Your task to perform on an android device: change the clock display to digital Image 0: 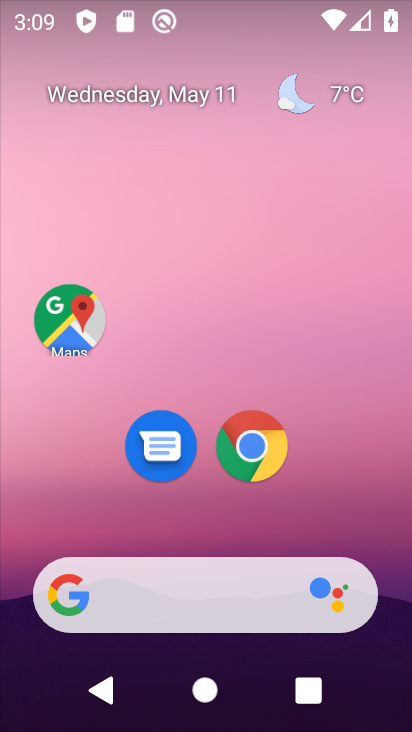
Step 0: drag from (344, 674) to (178, 197)
Your task to perform on an android device: change the clock display to digital Image 1: 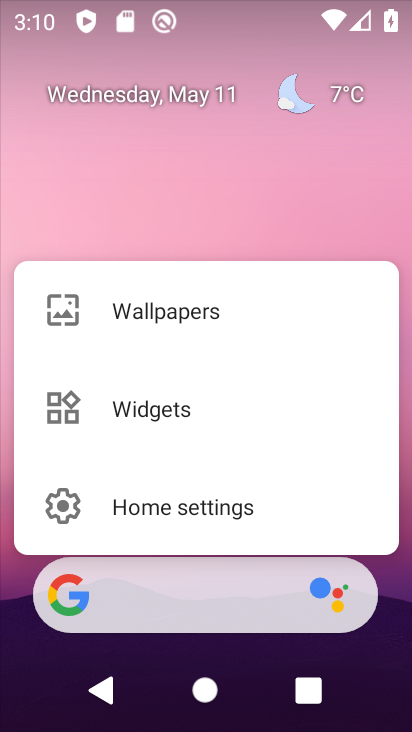
Step 1: click (254, 221)
Your task to perform on an android device: change the clock display to digital Image 2: 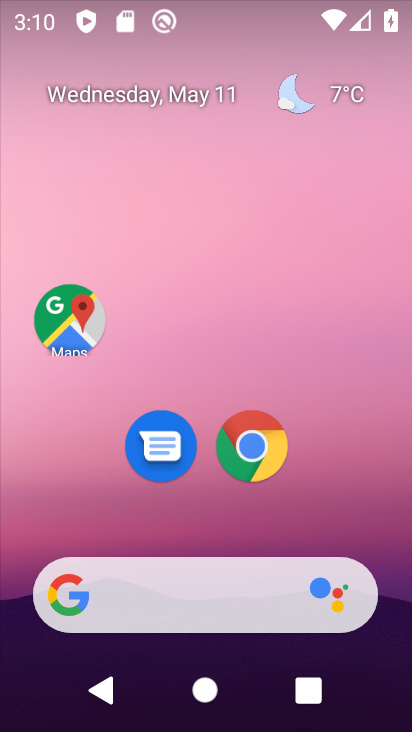
Step 2: click (254, 221)
Your task to perform on an android device: change the clock display to digital Image 3: 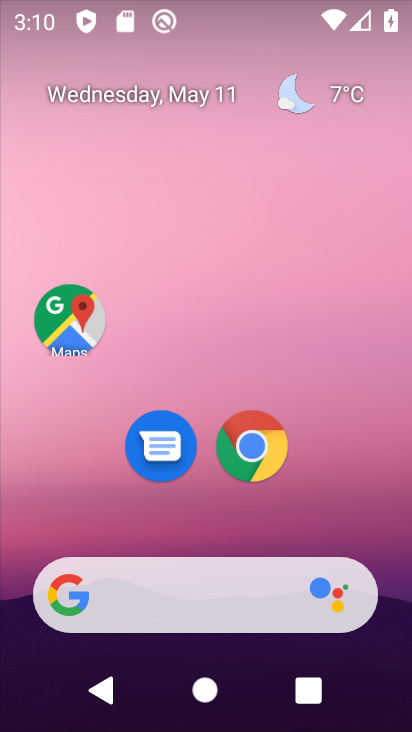
Step 3: click (254, 217)
Your task to perform on an android device: change the clock display to digital Image 4: 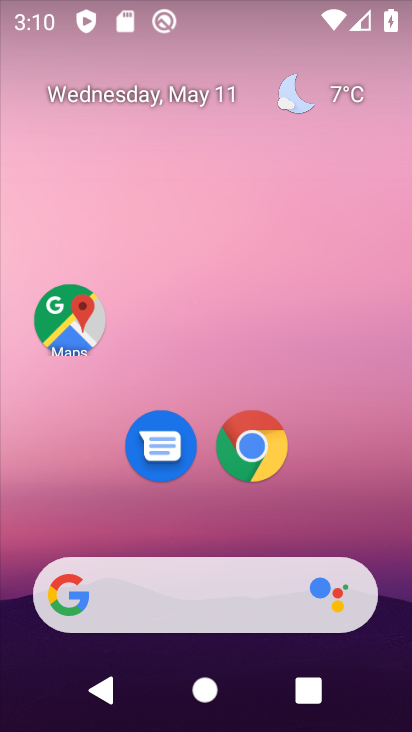
Step 4: drag from (346, 457) to (225, 132)
Your task to perform on an android device: change the clock display to digital Image 5: 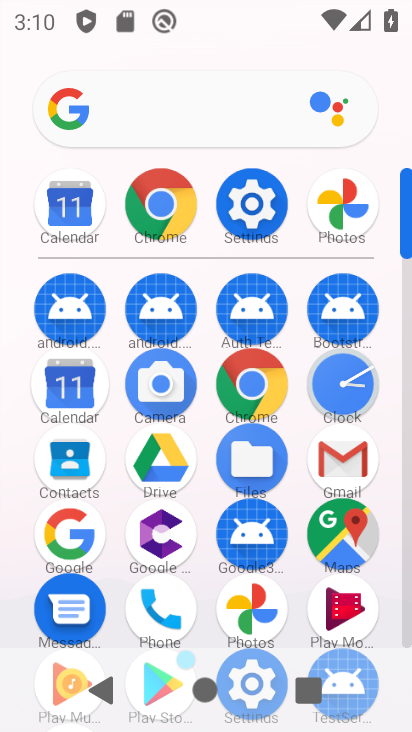
Step 5: click (350, 390)
Your task to perform on an android device: change the clock display to digital Image 6: 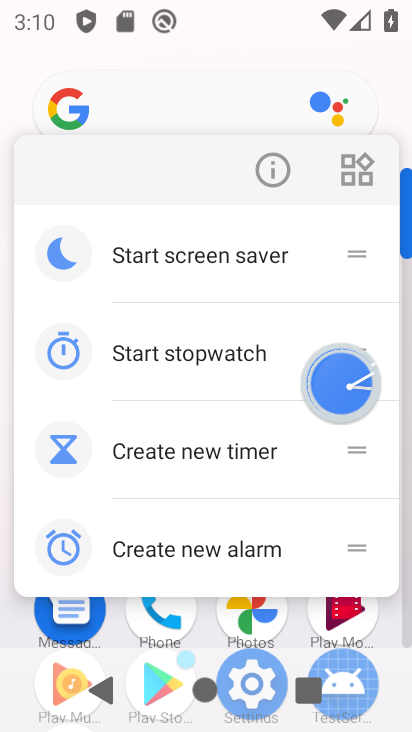
Step 6: click (339, 386)
Your task to perform on an android device: change the clock display to digital Image 7: 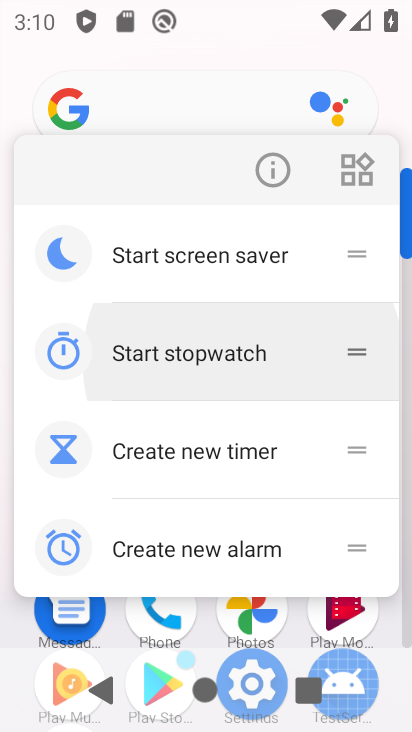
Step 7: click (338, 385)
Your task to perform on an android device: change the clock display to digital Image 8: 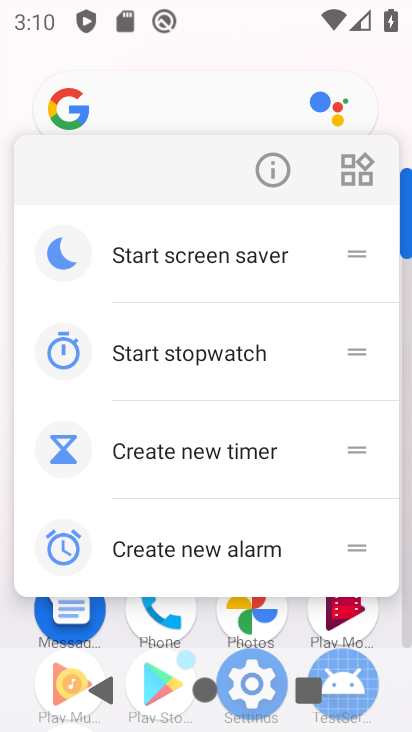
Step 8: click (190, 180)
Your task to perform on an android device: change the clock display to digital Image 9: 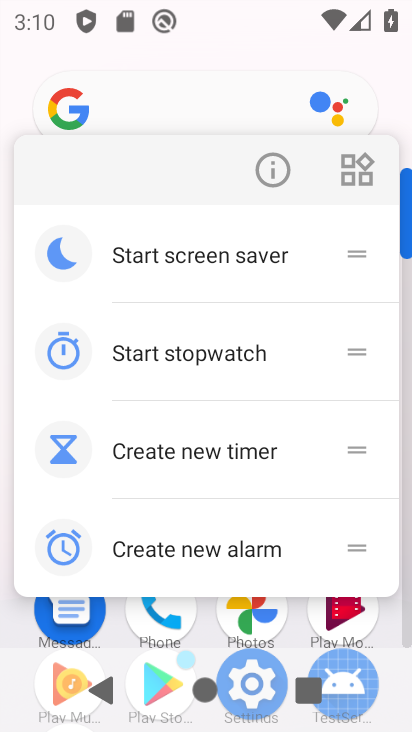
Step 9: click (189, 169)
Your task to perform on an android device: change the clock display to digital Image 10: 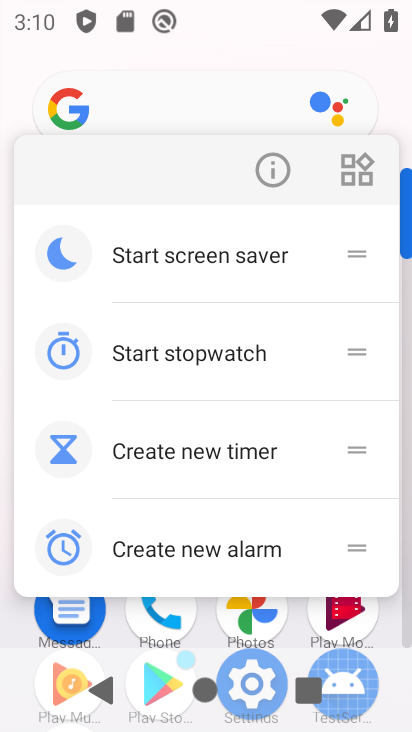
Step 10: click (188, 168)
Your task to perform on an android device: change the clock display to digital Image 11: 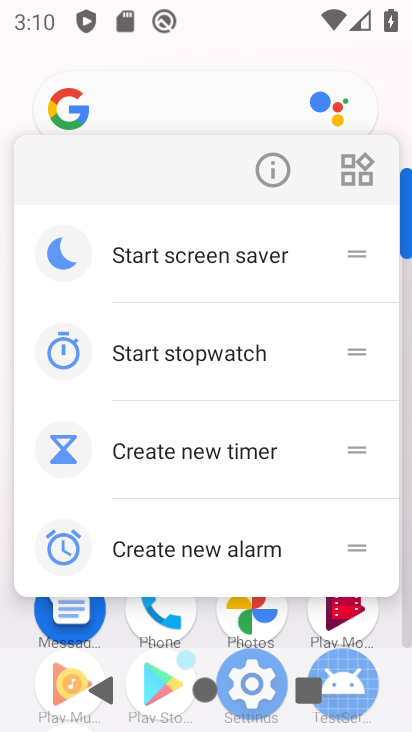
Step 11: click (186, 168)
Your task to perform on an android device: change the clock display to digital Image 12: 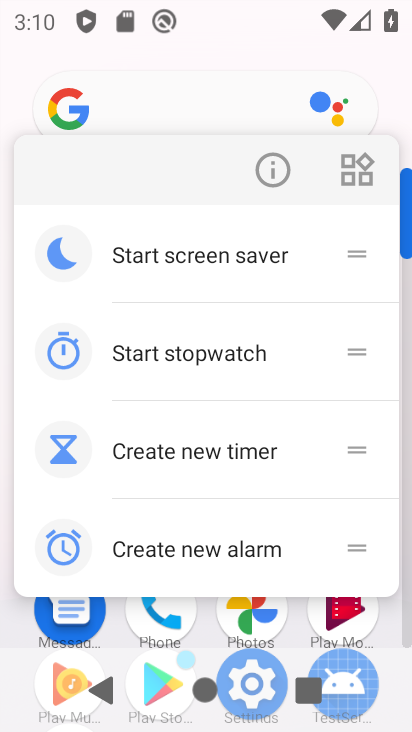
Step 12: click (207, 183)
Your task to perform on an android device: change the clock display to digital Image 13: 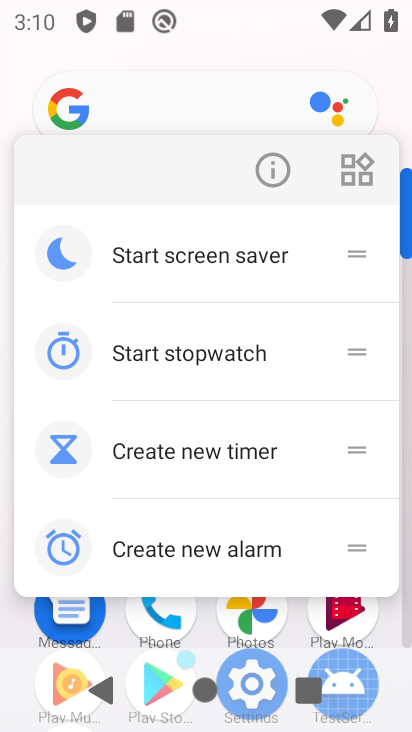
Step 13: click (204, 211)
Your task to perform on an android device: change the clock display to digital Image 14: 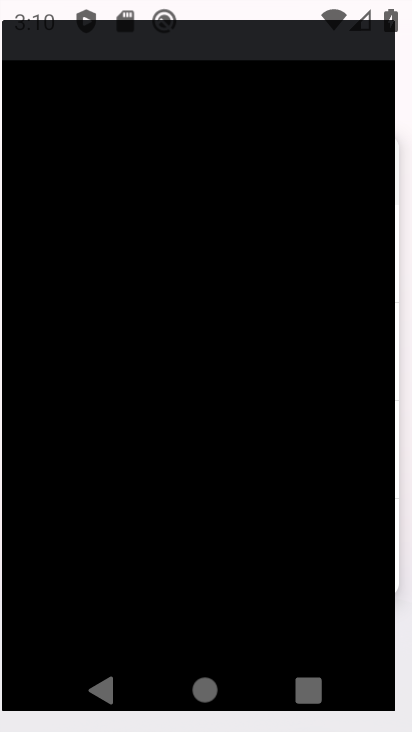
Step 14: click (199, 544)
Your task to perform on an android device: change the clock display to digital Image 15: 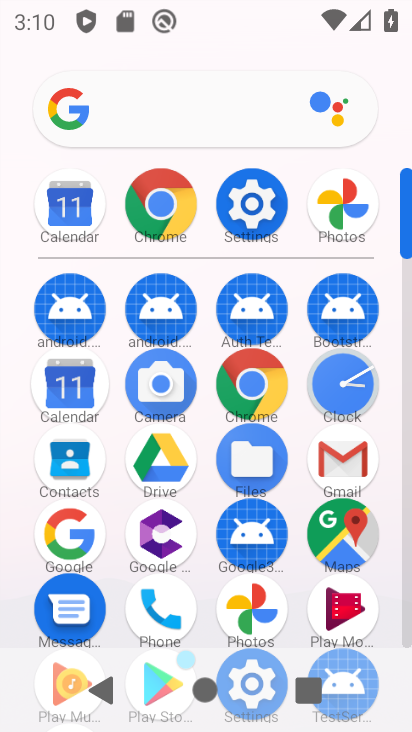
Step 15: click (346, 393)
Your task to perform on an android device: change the clock display to digital Image 16: 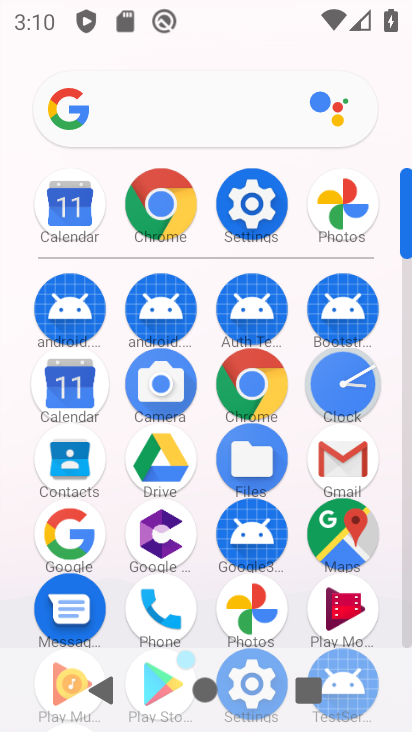
Step 16: click (344, 391)
Your task to perform on an android device: change the clock display to digital Image 17: 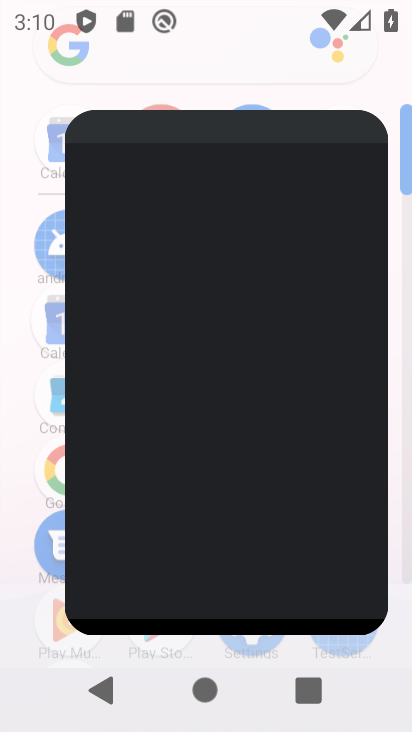
Step 17: click (333, 398)
Your task to perform on an android device: change the clock display to digital Image 18: 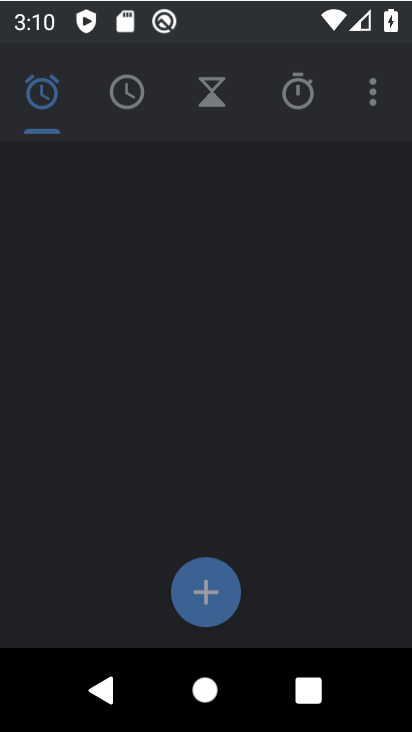
Step 18: click (333, 398)
Your task to perform on an android device: change the clock display to digital Image 19: 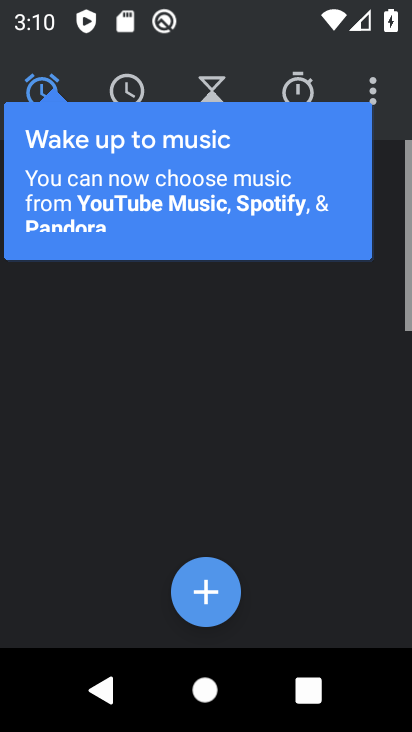
Step 19: click (333, 399)
Your task to perform on an android device: change the clock display to digital Image 20: 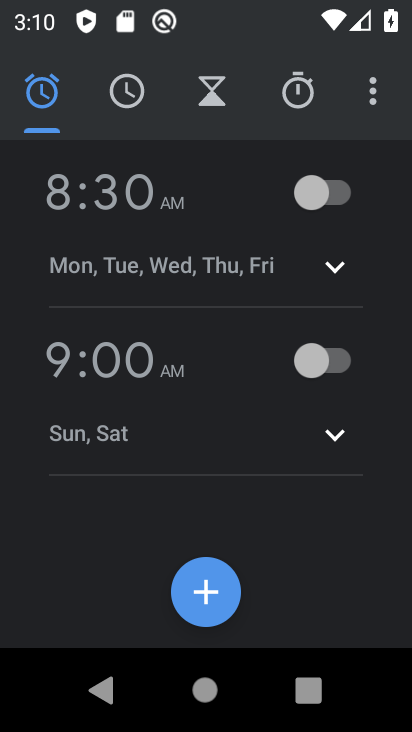
Step 20: click (377, 96)
Your task to perform on an android device: change the clock display to digital Image 21: 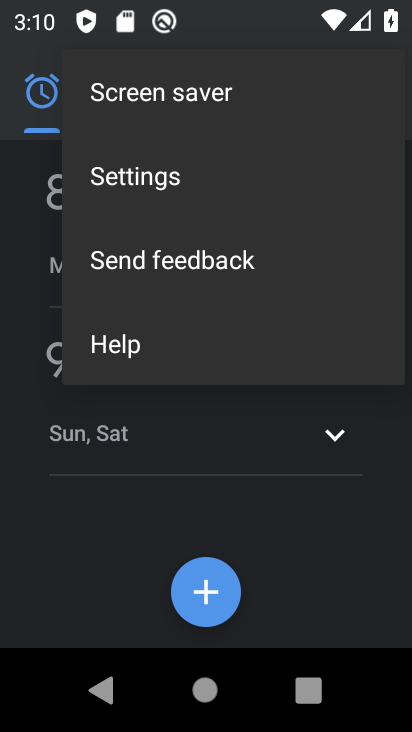
Step 21: click (146, 186)
Your task to perform on an android device: change the clock display to digital Image 22: 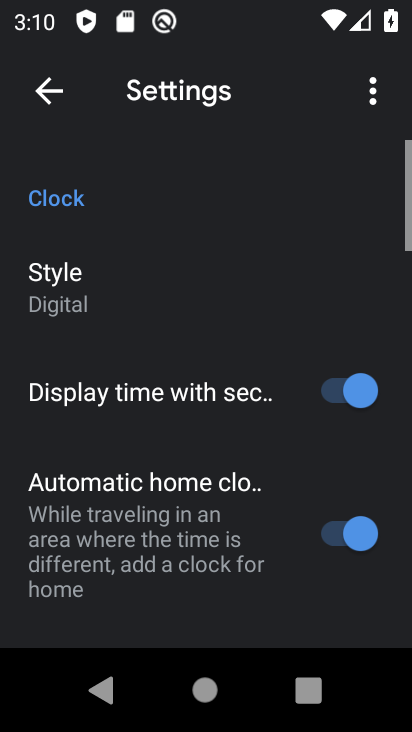
Step 22: click (106, 266)
Your task to perform on an android device: change the clock display to digital Image 23: 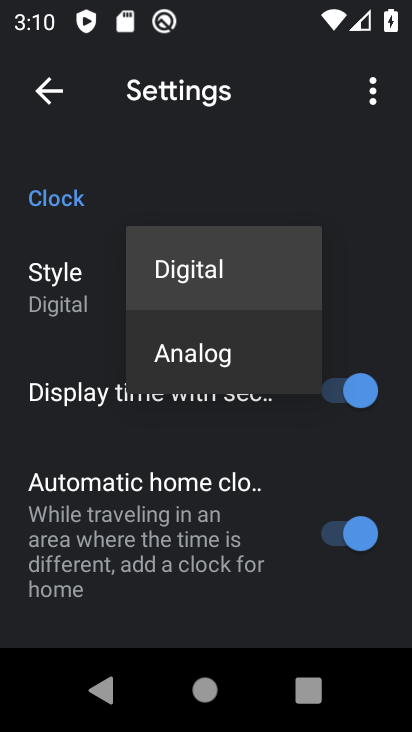
Step 23: click (204, 348)
Your task to perform on an android device: change the clock display to digital Image 24: 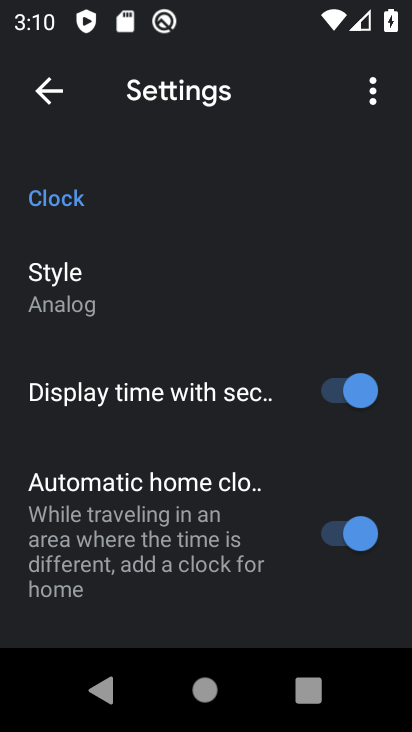
Step 24: task complete